Your task to perform on an android device: Open Chrome and go to the settings page Image 0: 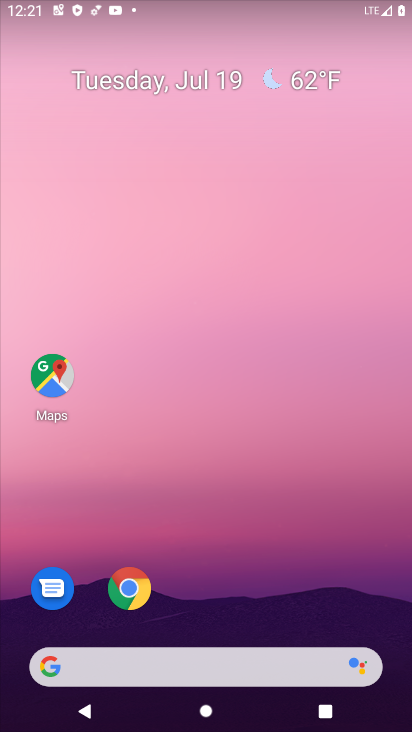
Step 0: click (137, 584)
Your task to perform on an android device: Open Chrome and go to the settings page Image 1: 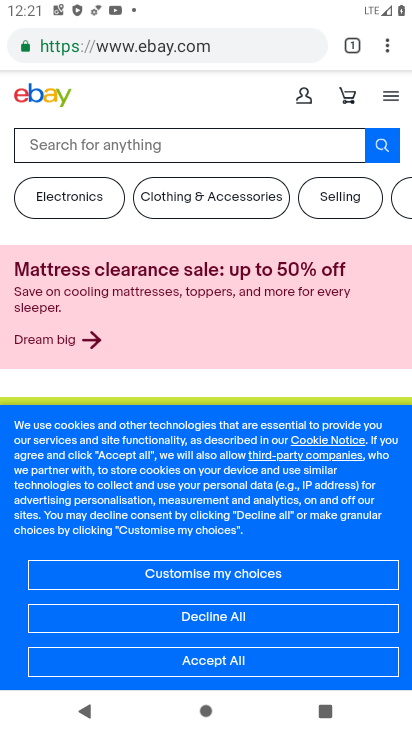
Step 1: click (391, 41)
Your task to perform on an android device: Open Chrome and go to the settings page Image 2: 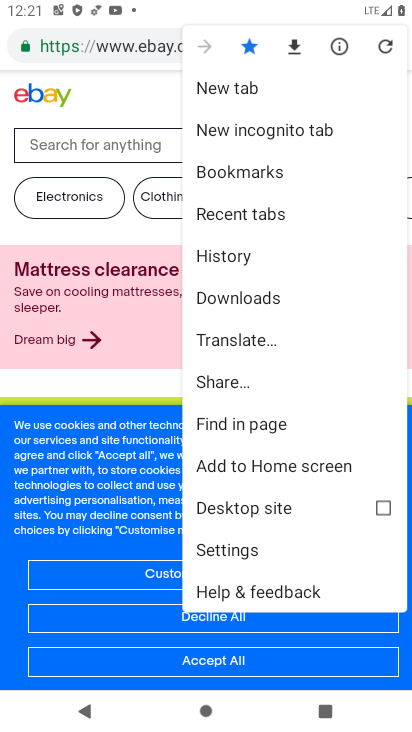
Step 2: click (246, 543)
Your task to perform on an android device: Open Chrome and go to the settings page Image 3: 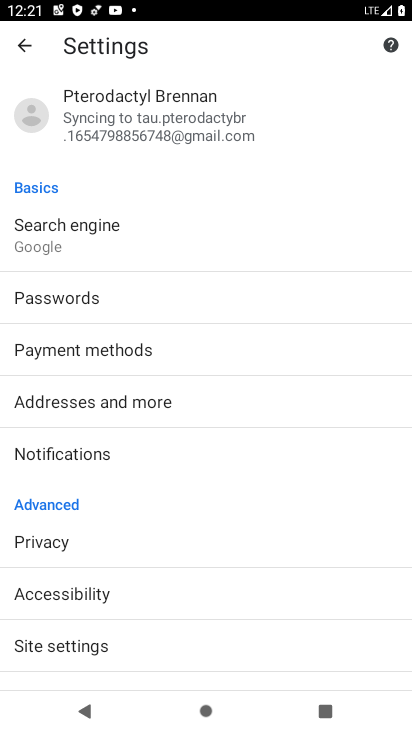
Step 3: task complete